Your task to perform on an android device: turn off location Image 0: 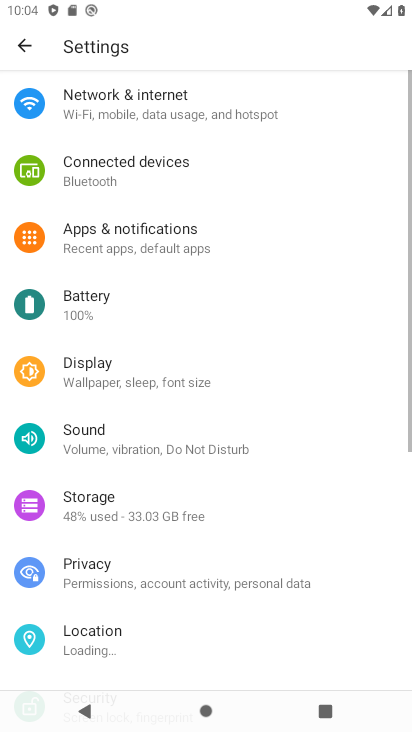
Step 0: press home button
Your task to perform on an android device: turn off location Image 1: 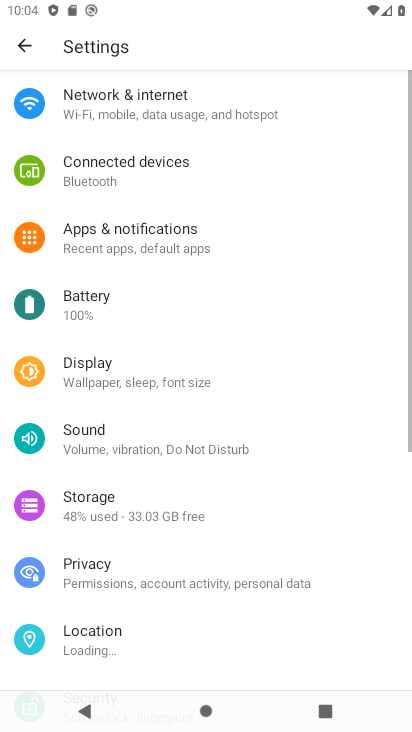
Step 1: drag from (394, 620) to (243, 33)
Your task to perform on an android device: turn off location Image 2: 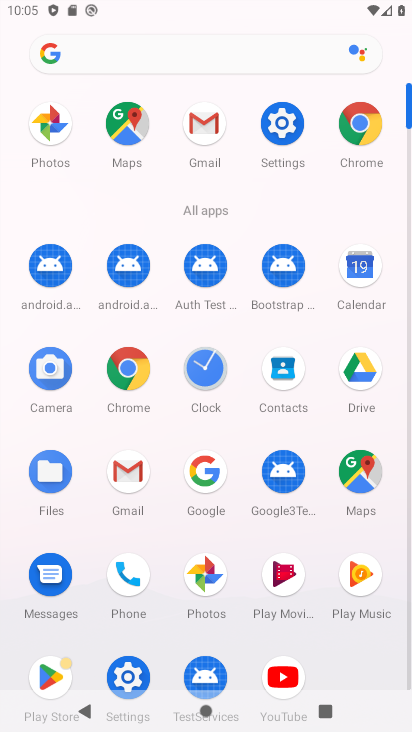
Step 2: click (129, 669)
Your task to perform on an android device: turn off location Image 3: 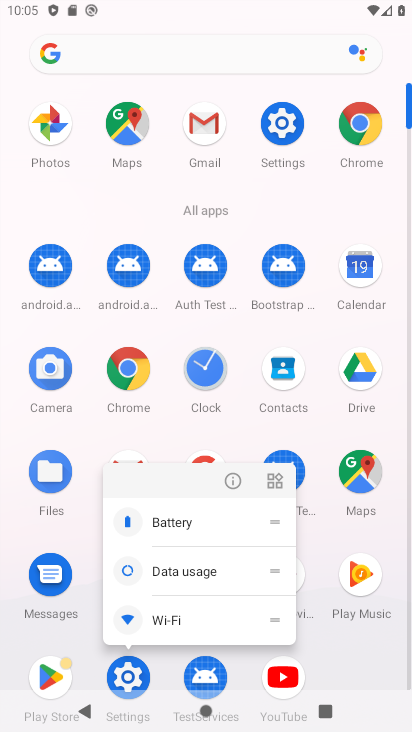
Step 3: click (125, 653)
Your task to perform on an android device: turn off location Image 4: 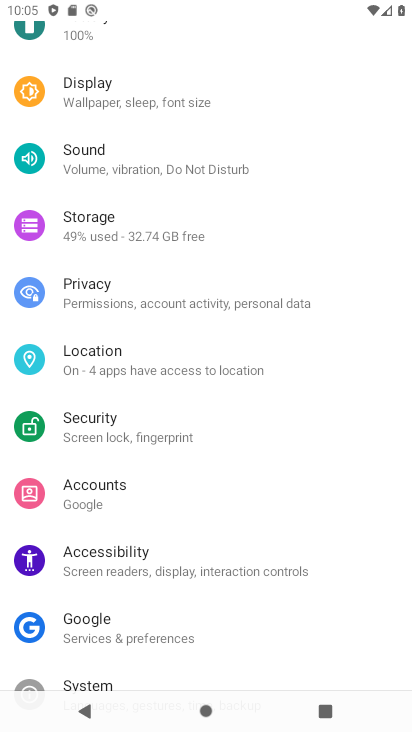
Step 4: click (107, 372)
Your task to perform on an android device: turn off location Image 5: 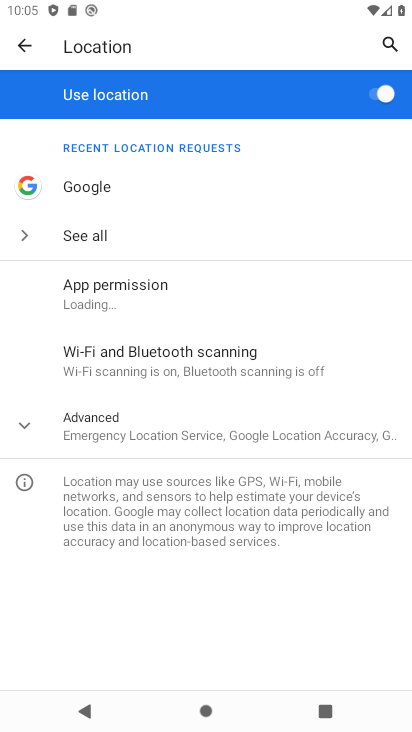
Step 5: click (372, 100)
Your task to perform on an android device: turn off location Image 6: 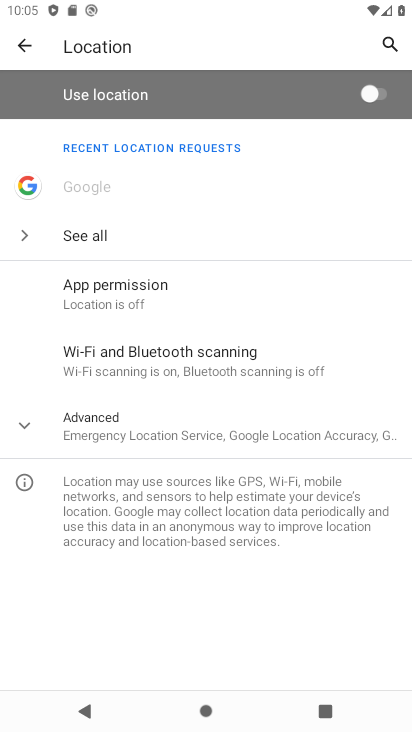
Step 6: task complete